Your task to perform on an android device: see tabs open on other devices in the chrome app Image 0: 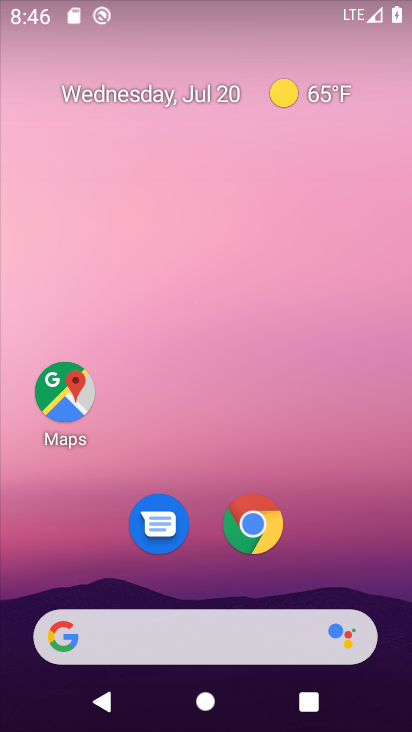
Step 0: click (262, 524)
Your task to perform on an android device: see tabs open on other devices in the chrome app Image 1: 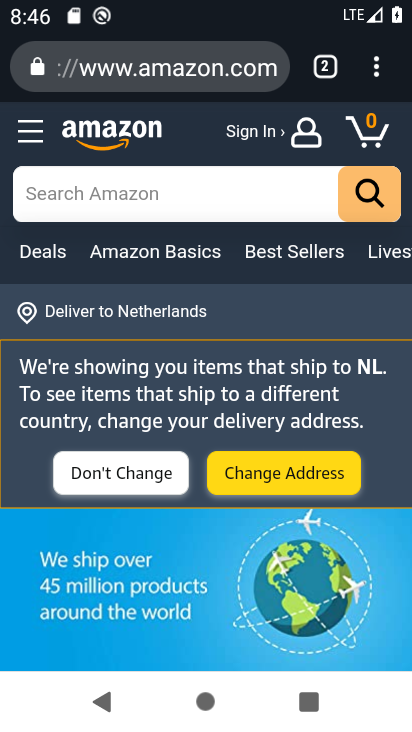
Step 1: click (380, 78)
Your task to perform on an android device: see tabs open on other devices in the chrome app Image 2: 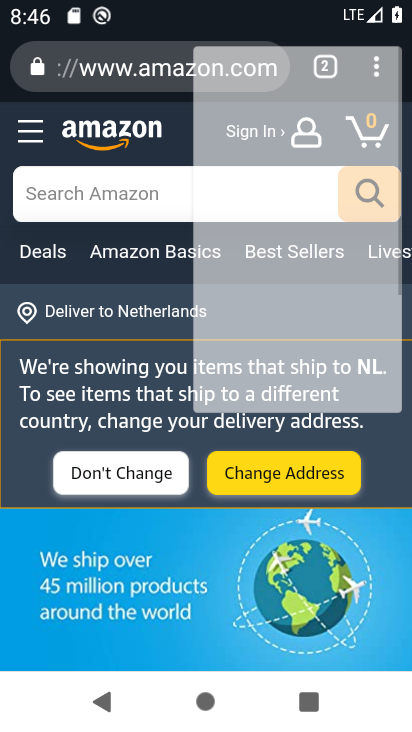
Step 2: click (380, 78)
Your task to perform on an android device: see tabs open on other devices in the chrome app Image 3: 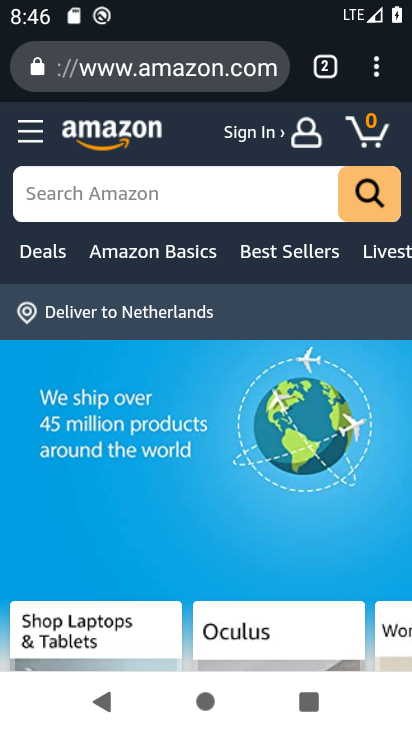
Step 3: click (375, 71)
Your task to perform on an android device: see tabs open on other devices in the chrome app Image 4: 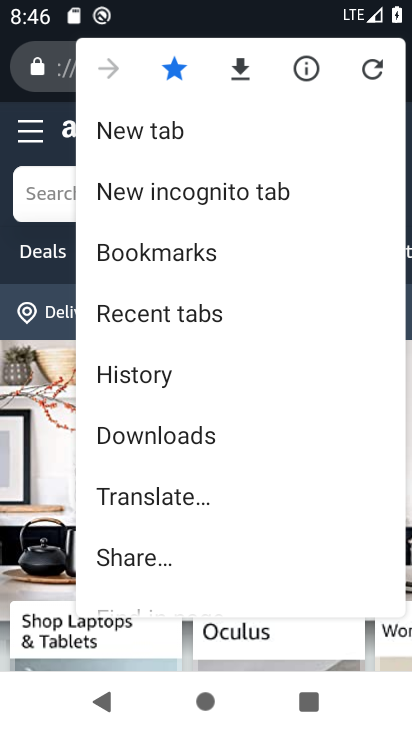
Step 4: click (205, 301)
Your task to perform on an android device: see tabs open on other devices in the chrome app Image 5: 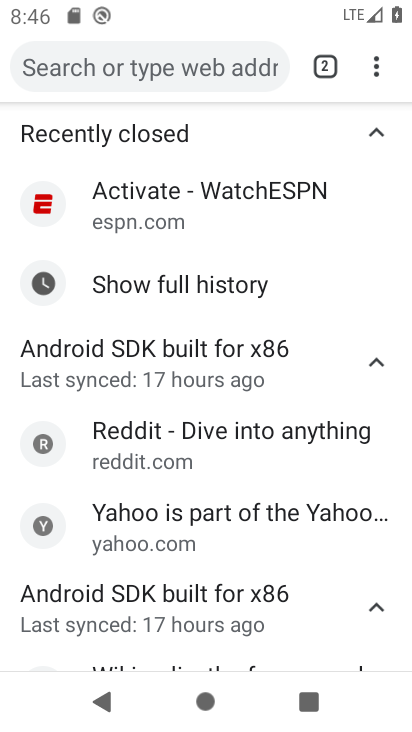
Step 5: task complete